Your task to perform on an android device: move an email to a new category in the gmail app Image 0: 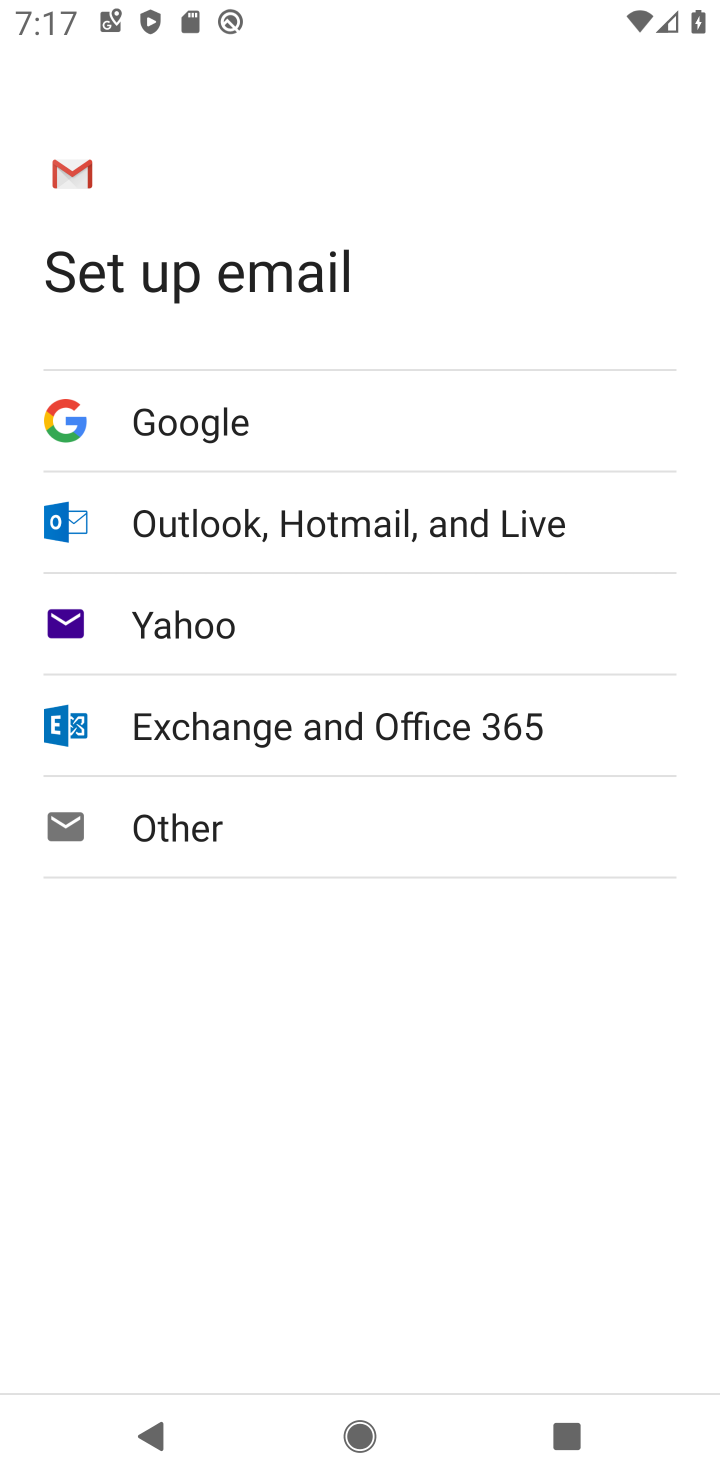
Step 0: press home button
Your task to perform on an android device: move an email to a new category in the gmail app Image 1: 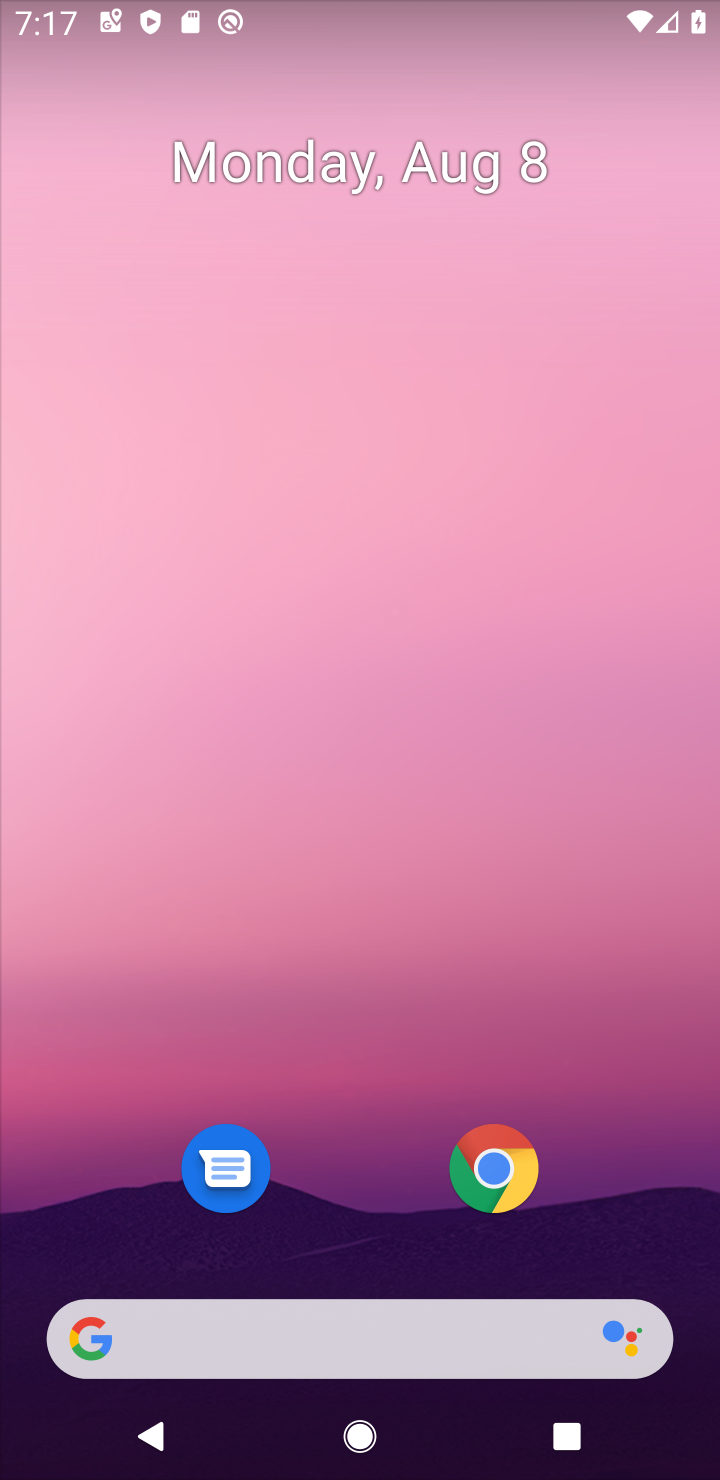
Step 1: drag from (623, 1226) to (445, 67)
Your task to perform on an android device: move an email to a new category in the gmail app Image 2: 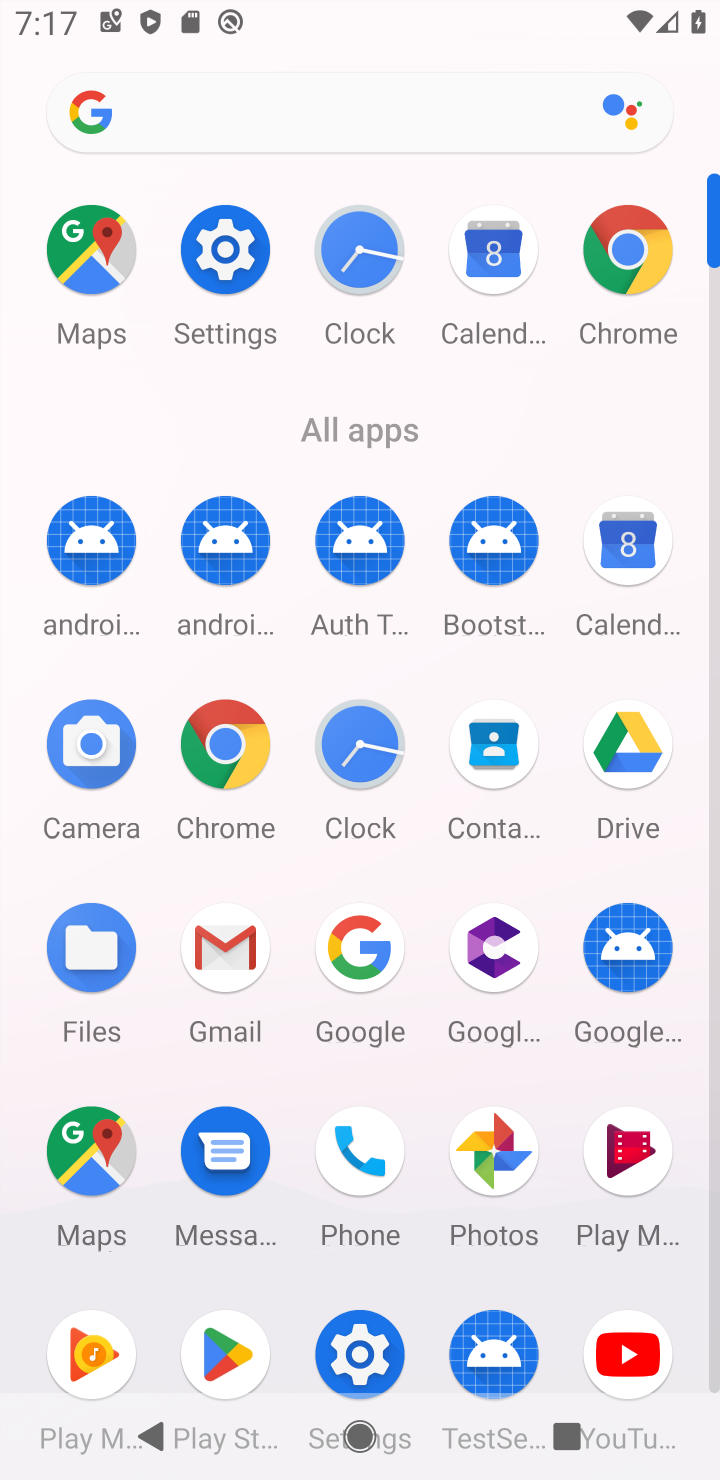
Step 2: click (251, 966)
Your task to perform on an android device: move an email to a new category in the gmail app Image 3: 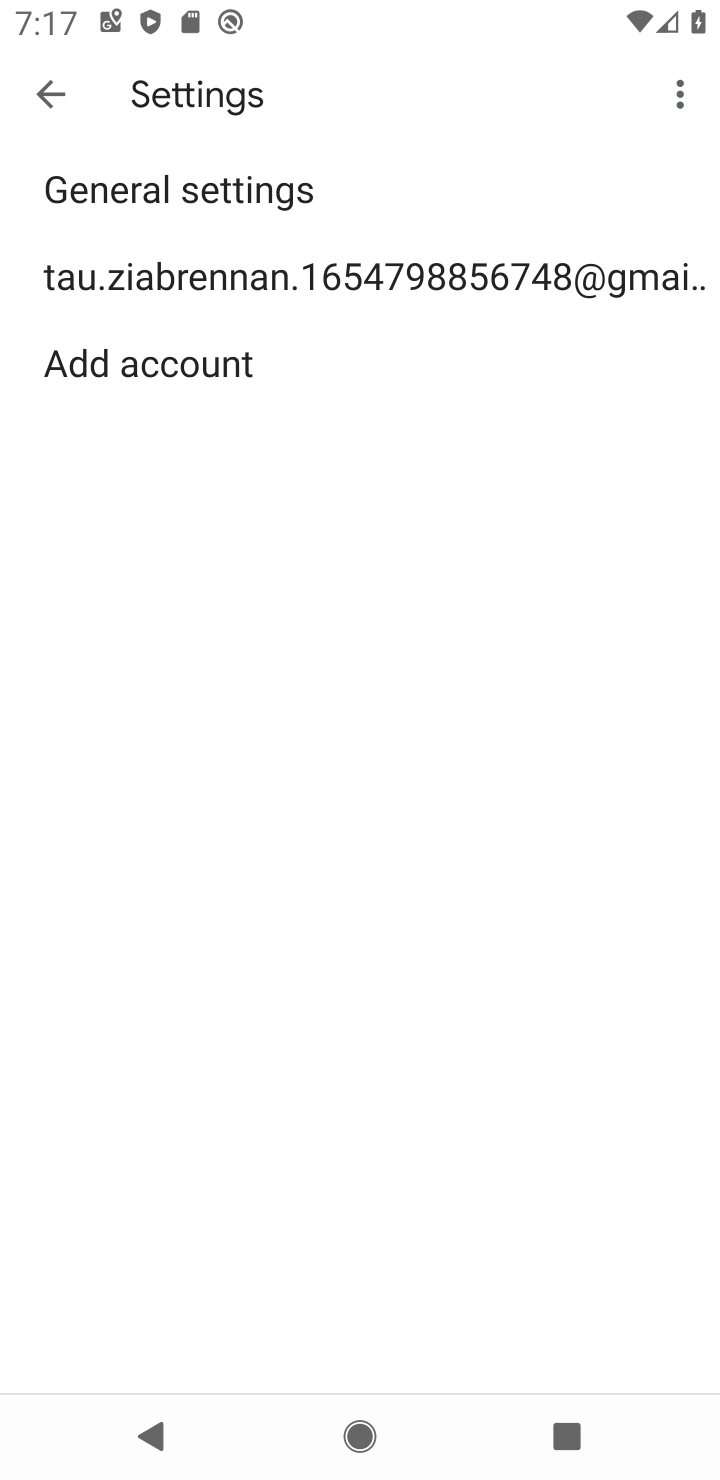
Step 3: click (438, 288)
Your task to perform on an android device: move an email to a new category in the gmail app Image 4: 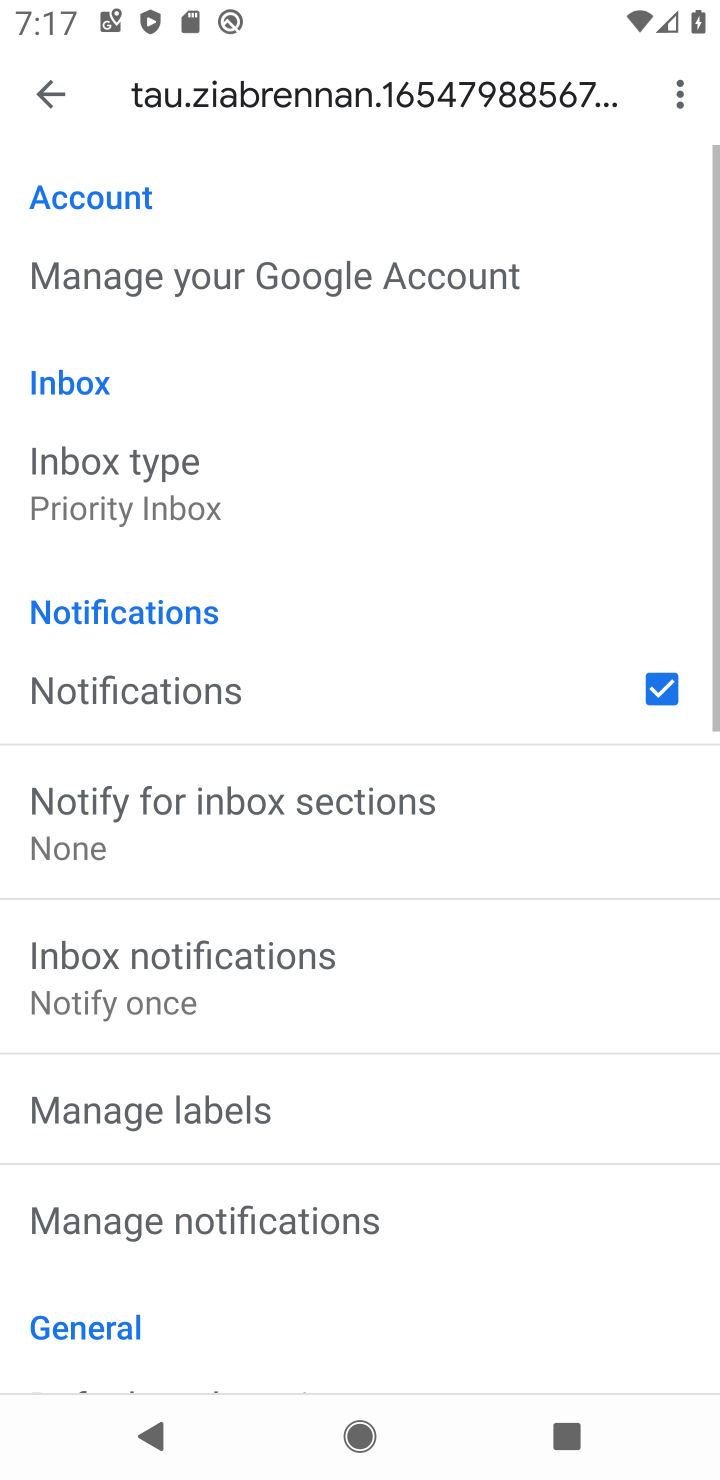
Step 4: press back button
Your task to perform on an android device: move an email to a new category in the gmail app Image 5: 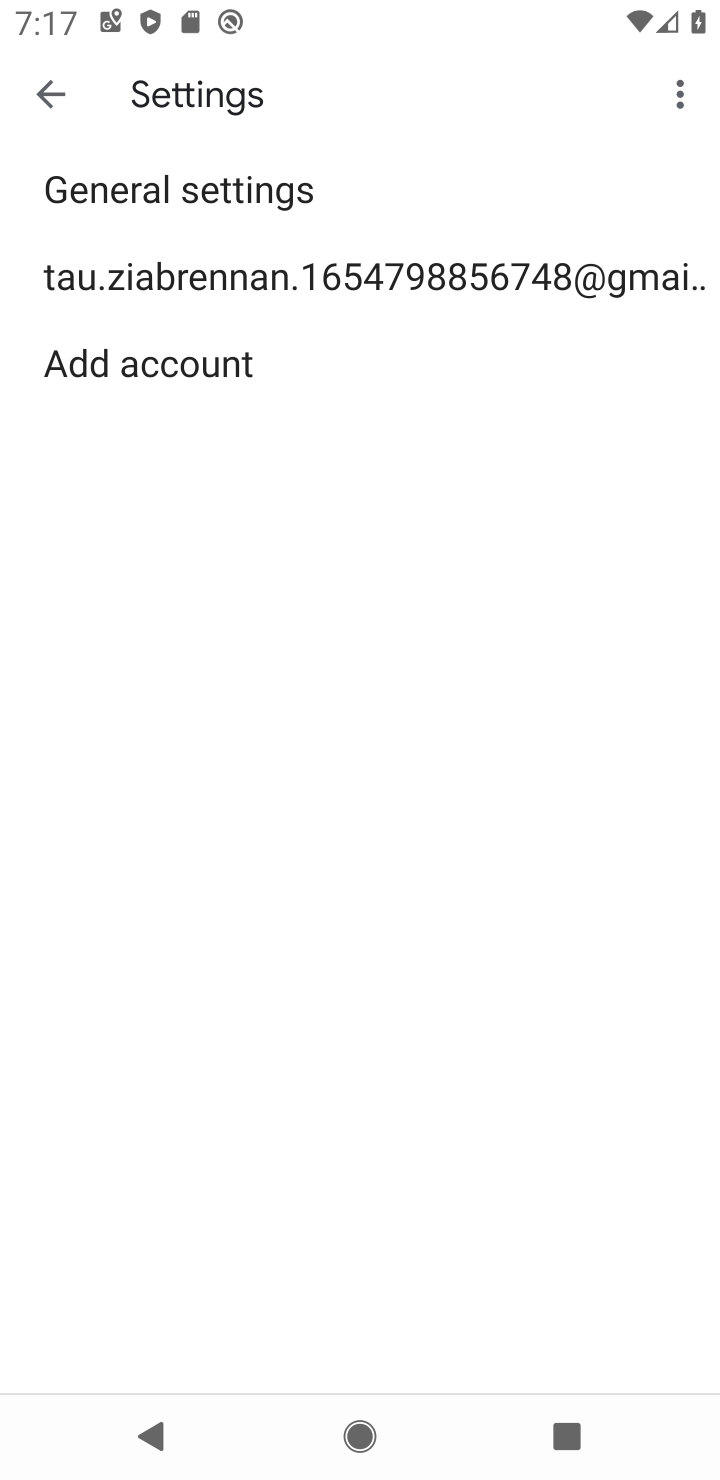
Step 5: press back button
Your task to perform on an android device: move an email to a new category in the gmail app Image 6: 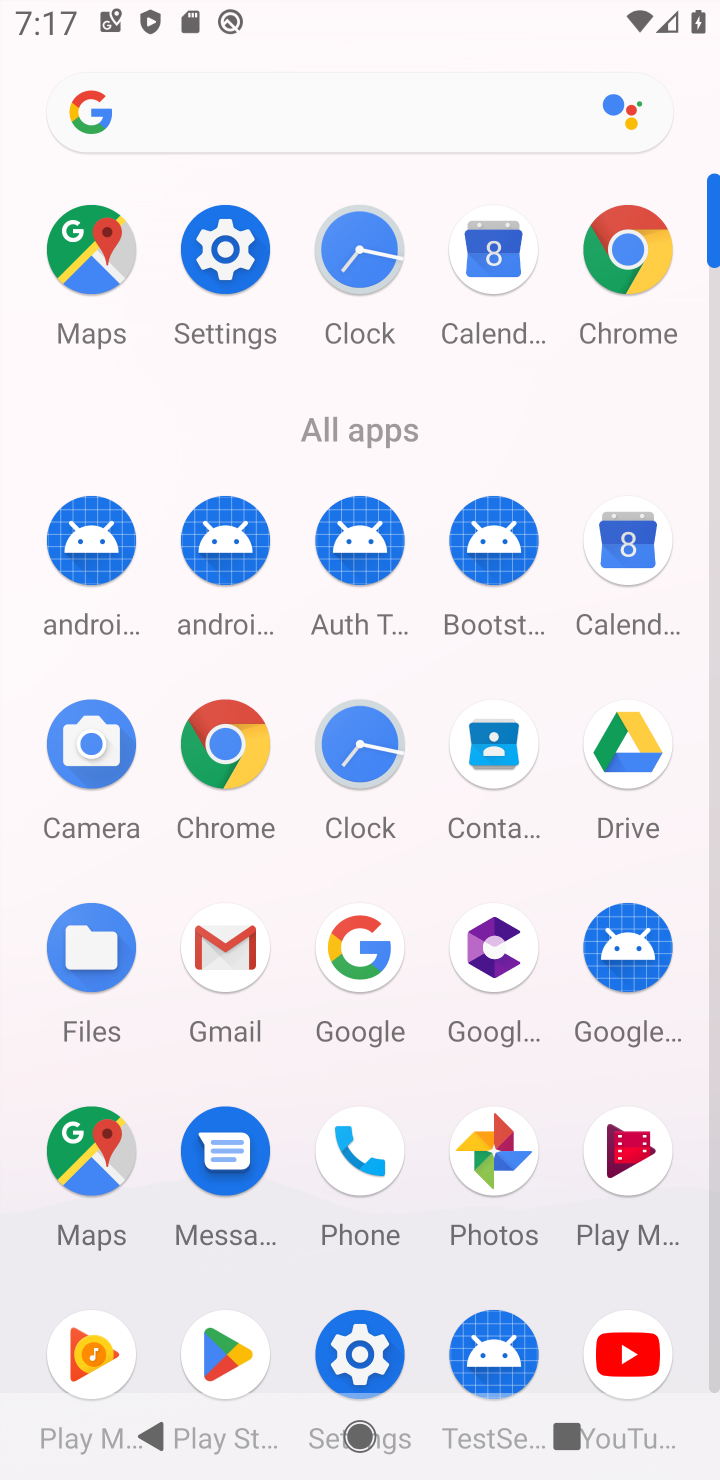
Step 6: click (226, 950)
Your task to perform on an android device: move an email to a new category in the gmail app Image 7: 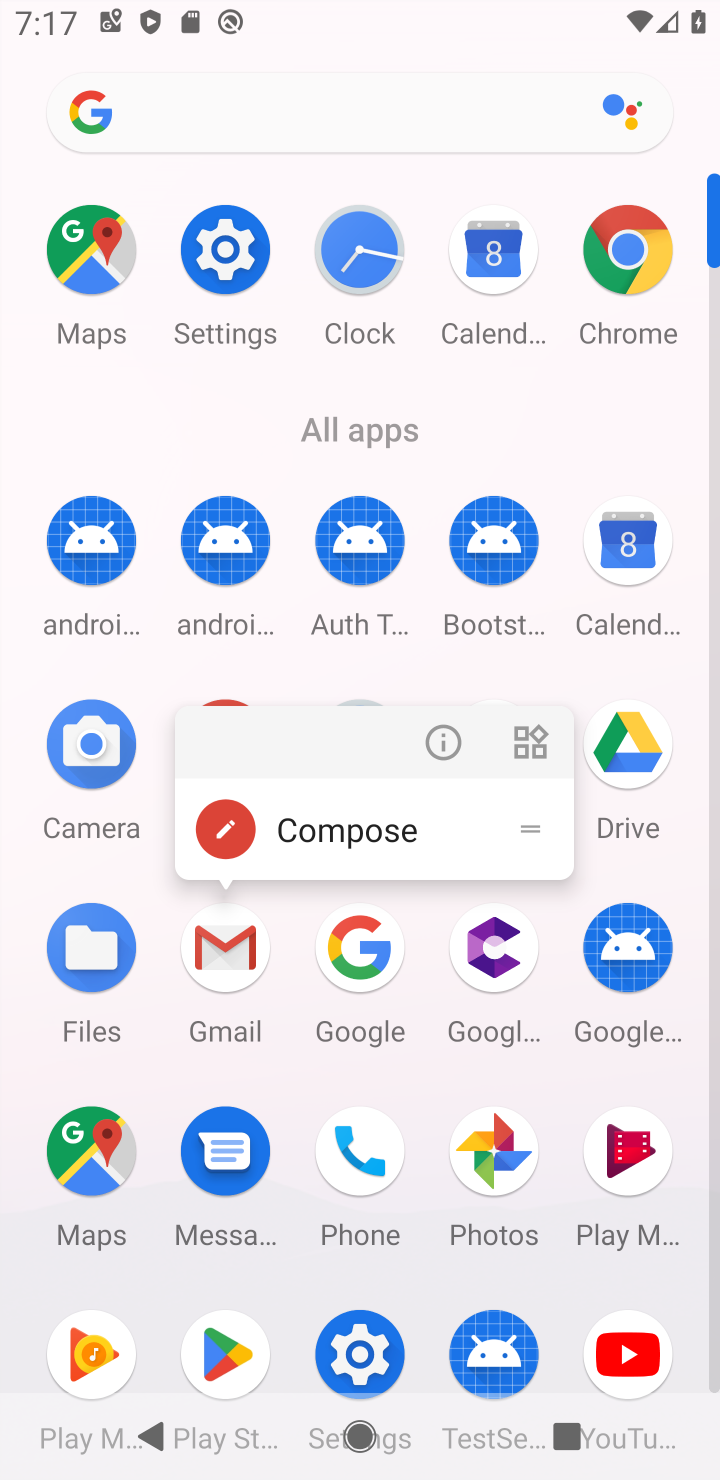
Step 7: click (226, 950)
Your task to perform on an android device: move an email to a new category in the gmail app Image 8: 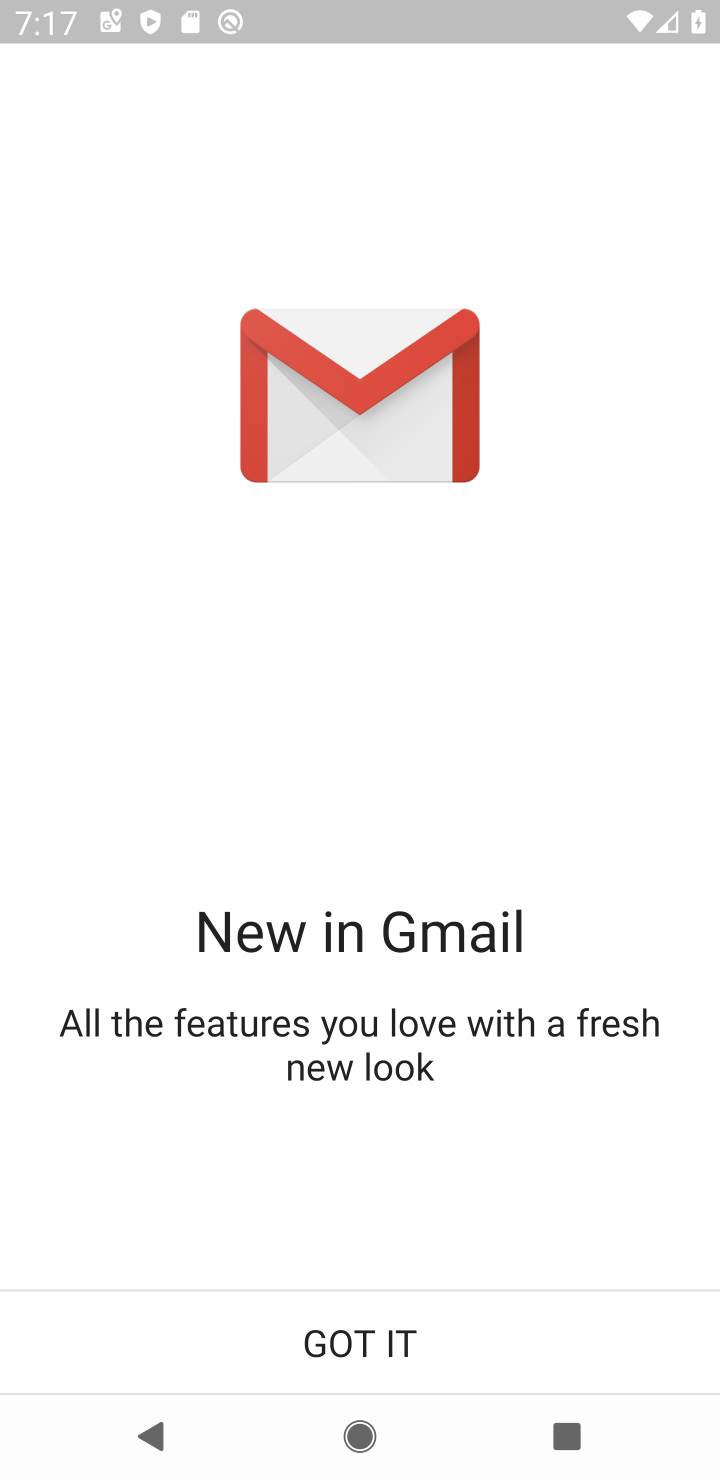
Step 8: click (343, 1321)
Your task to perform on an android device: move an email to a new category in the gmail app Image 9: 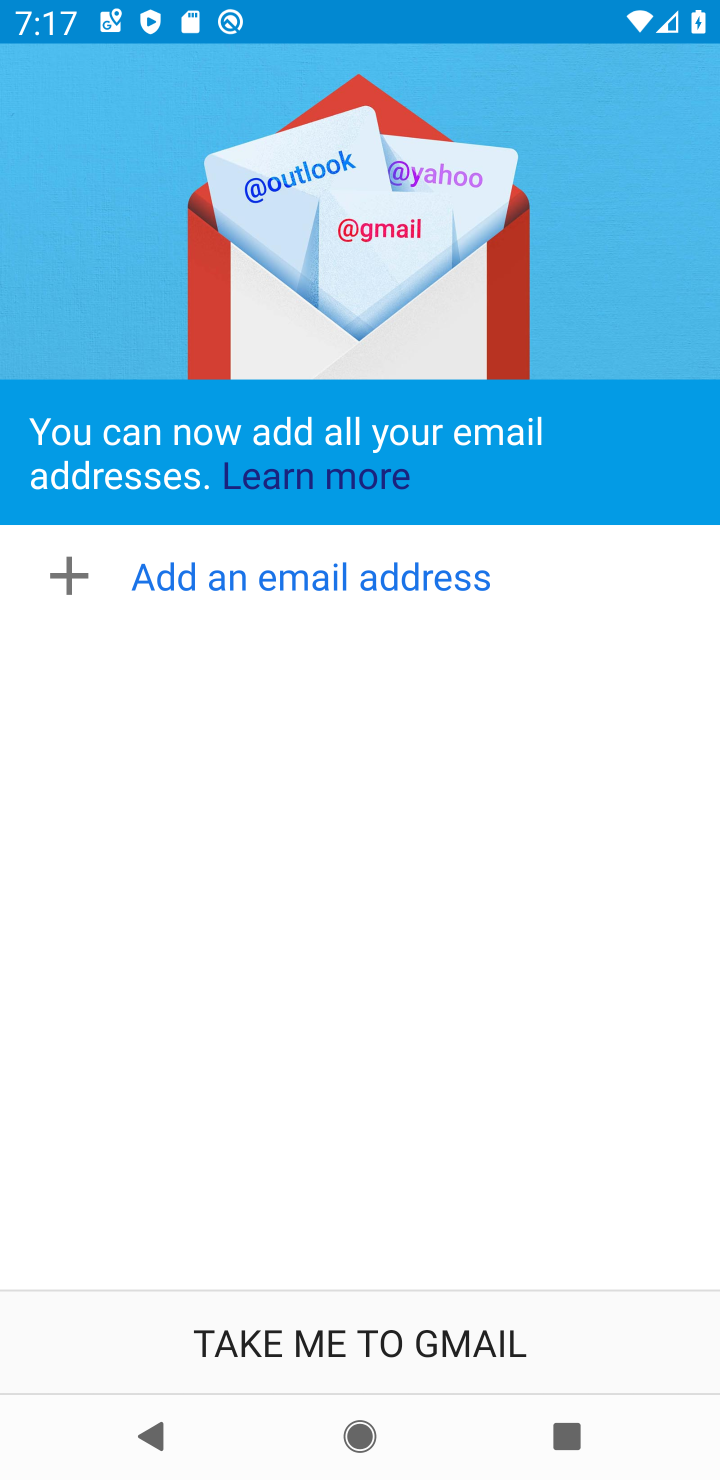
Step 9: click (343, 1321)
Your task to perform on an android device: move an email to a new category in the gmail app Image 10: 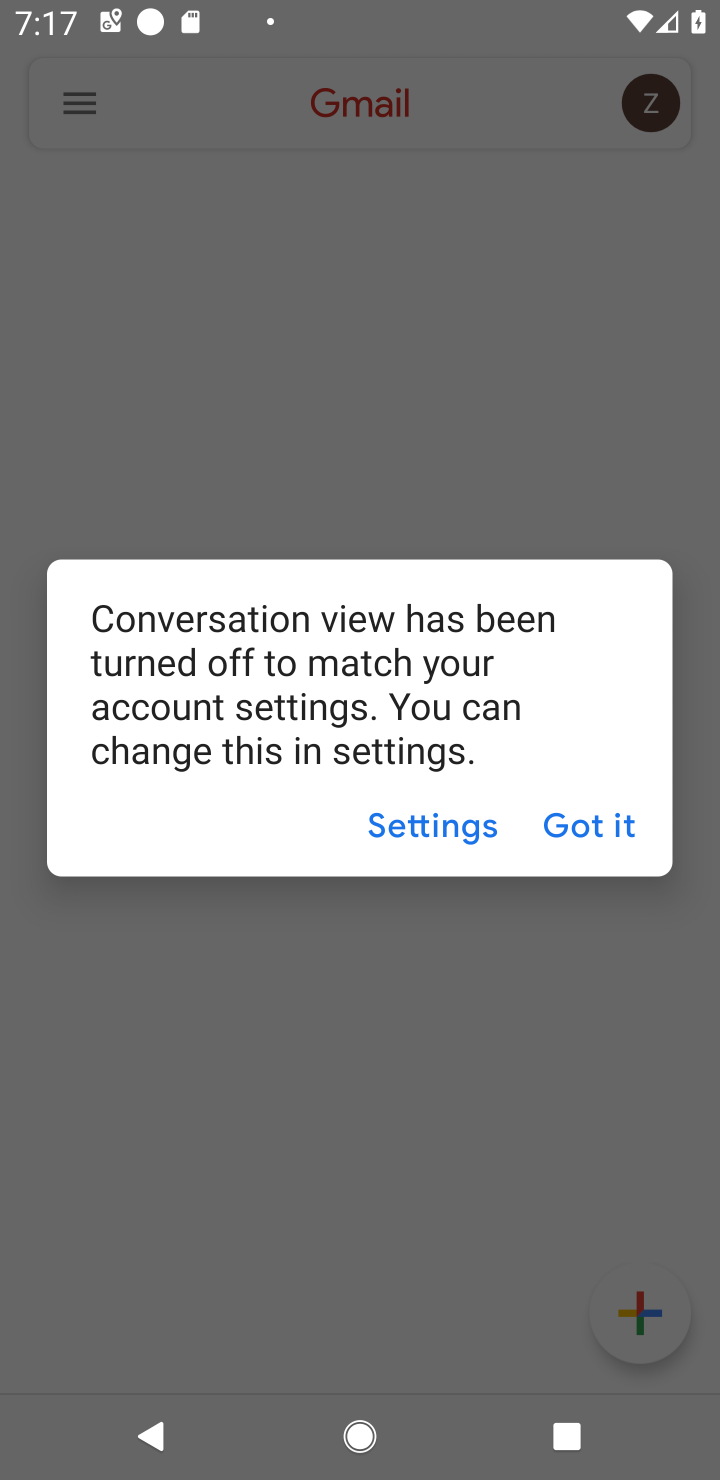
Step 10: click (612, 834)
Your task to perform on an android device: move an email to a new category in the gmail app Image 11: 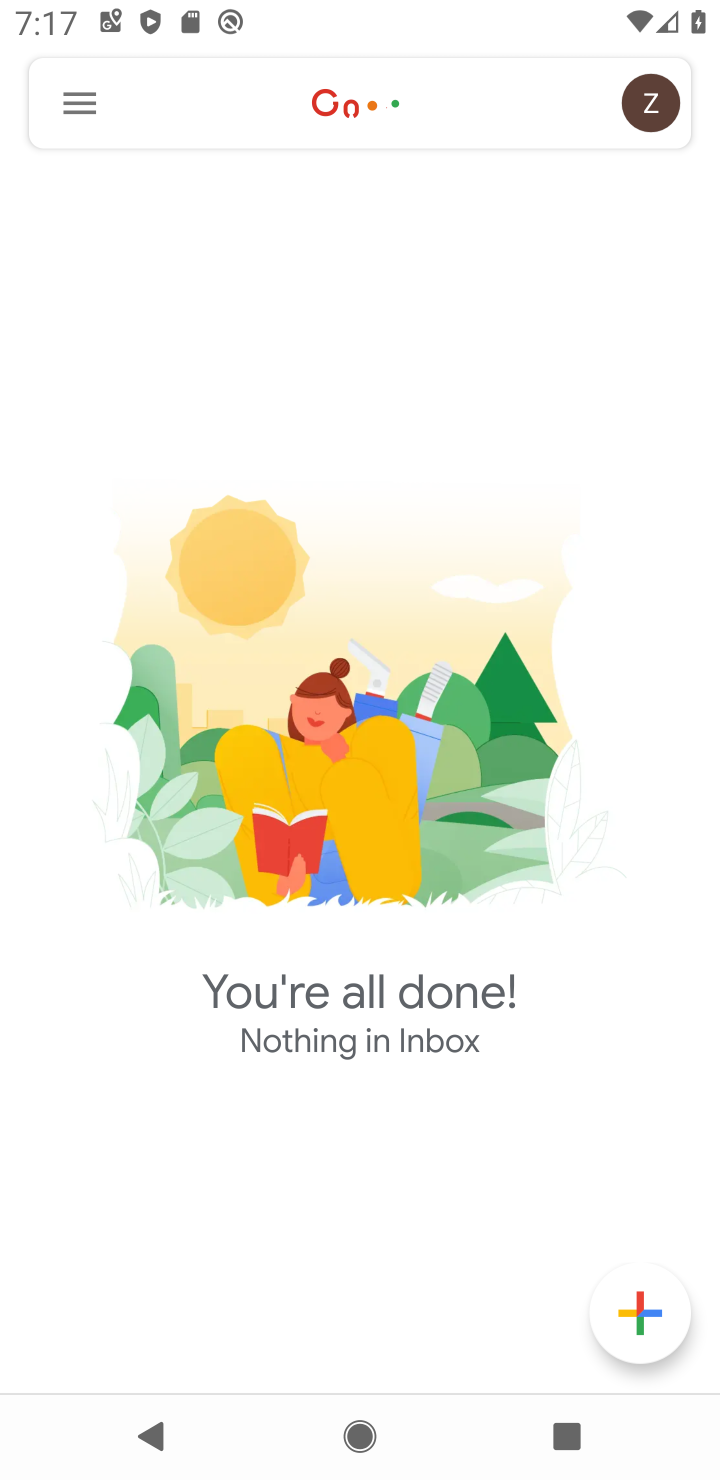
Step 11: task complete